Your task to perform on an android device: Search for sushi restaurants on Maps Image 0: 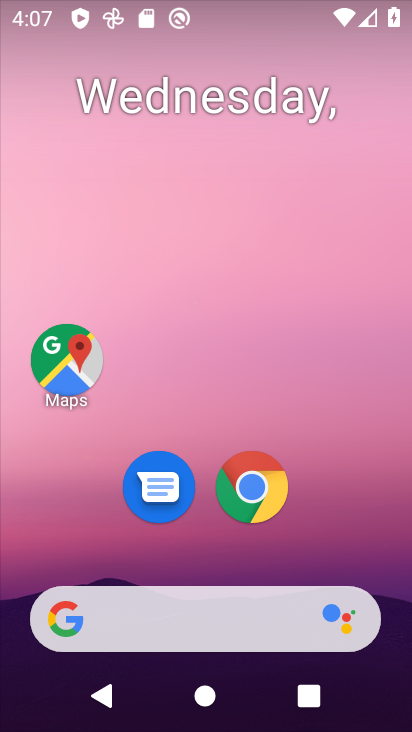
Step 0: drag from (368, 519) to (341, 233)
Your task to perform on an android device: Search for sushi restaurants on Maps Image 1: 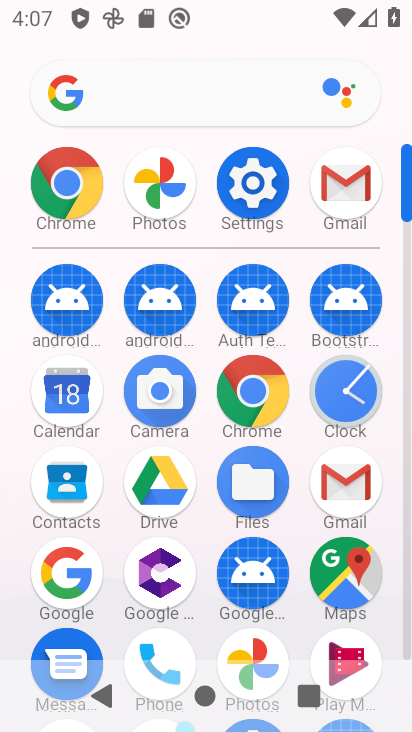
Step 1: click (366, 587)
Your task to perform on an android device: Search for sushi restaurants on Maps Image 2: 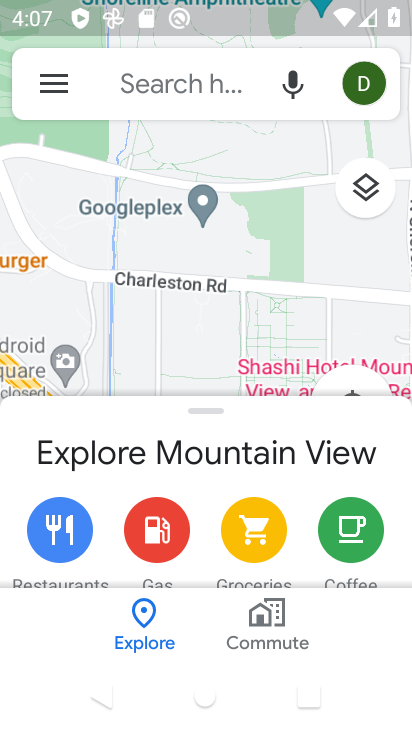
Step 2: click (203, 100)
Your task to perform on an android device: Search for sushi restaurants on Maps Image 3: 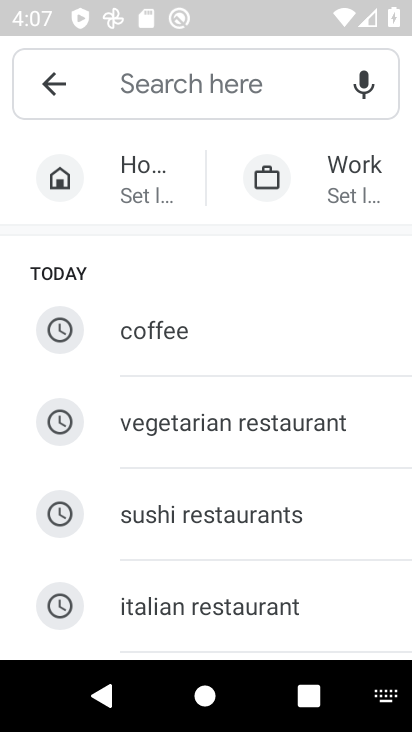
Step 3: type "sushi restaurants"
Your task to perform on an android device: Search for sushi restaurants on Maps Image 4: 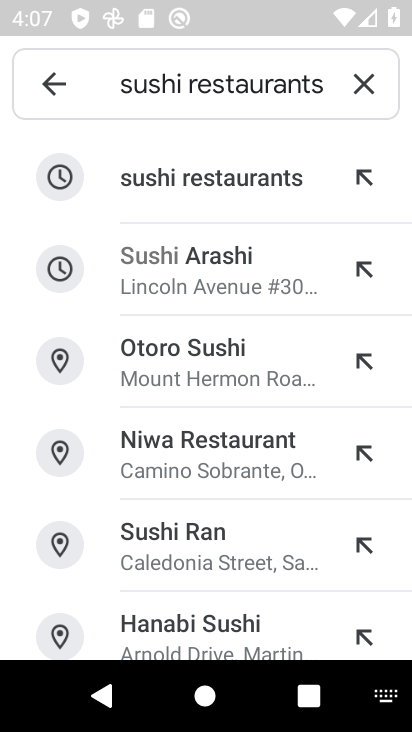
Step 4: click (276, 215)
Your task to perform on an android device: Search for sushi restaurants on Maps Image 5: 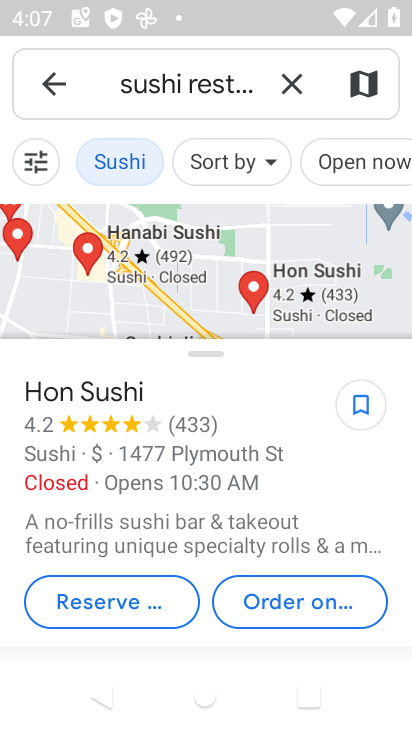
Step 5: task complete